Your task to perform on an android device: change text size in settings app Image 0: 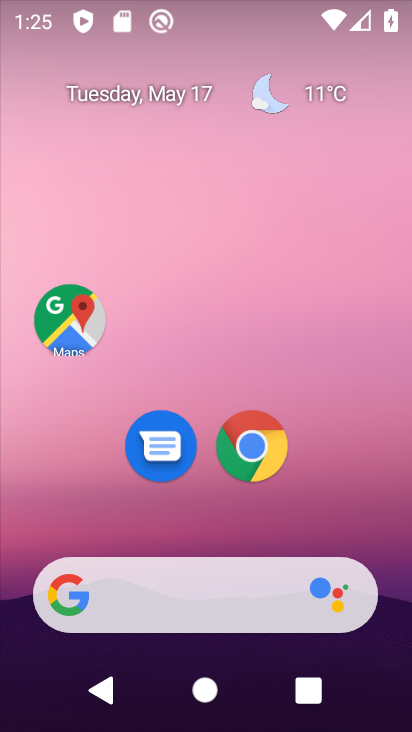
Step 0: drag from (356, 417) to (326, 74)
Your task to perform on an android device: change text size in settings app Image 1: 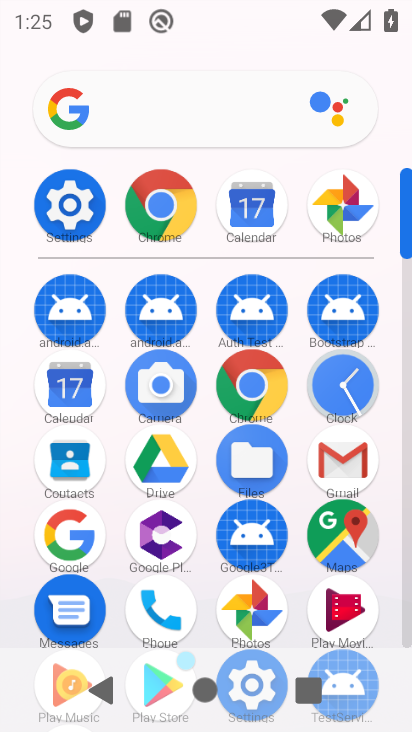
Step 1: click (66, 195)
Your task to perform on an android device: change text size in settings app Image 2: 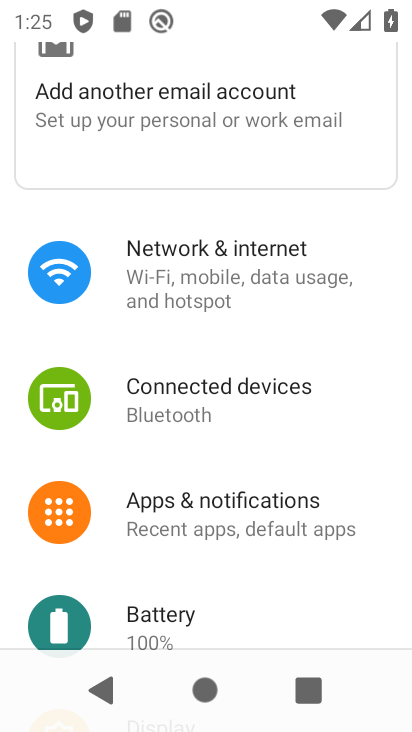
Step 2: drag from (209, 557) to (212, 296)
Your task to perform on an android device: change text size in settings app Image 3: 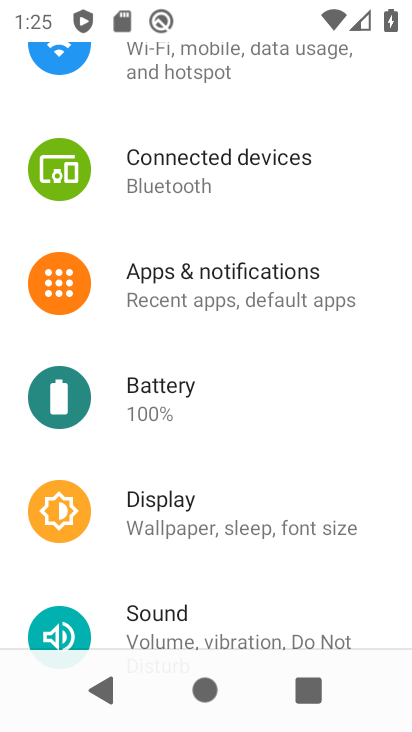
Step 3: click (188, 522)
Your task to perform on an android device: change text size in settings app Image 4: 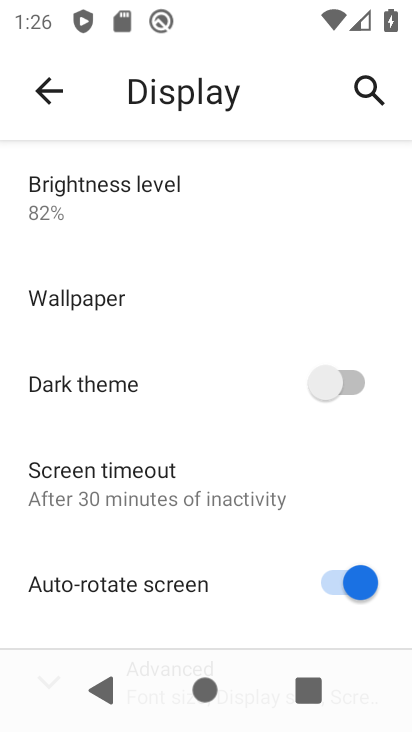
Step 4: drag from (272, 562) to (255, 134)
Your task to perform on an android device: change text size in settings app Image 5: 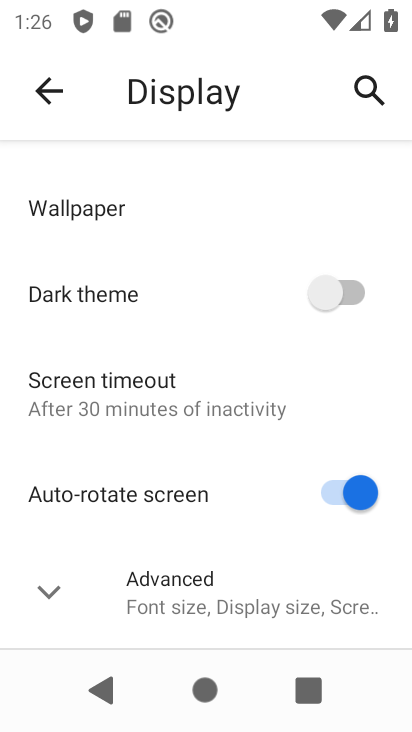
Step 5: click (208, 601)
Your task to perform on an android device: change text size in settings app Image 6: 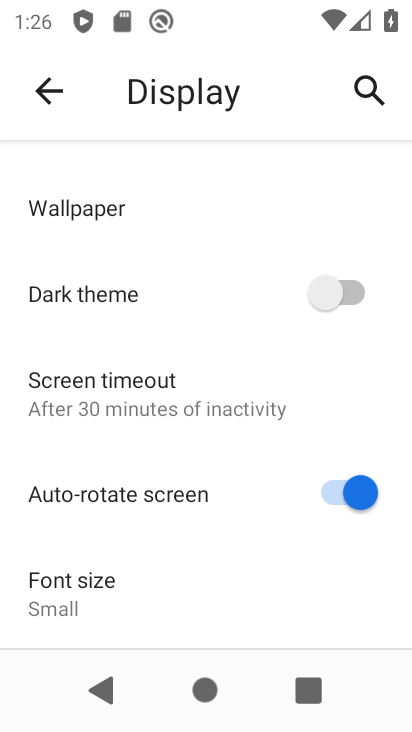
Step 6: click (124, 594)
Your task to perform on an android device: change text size in settings app Image 7: 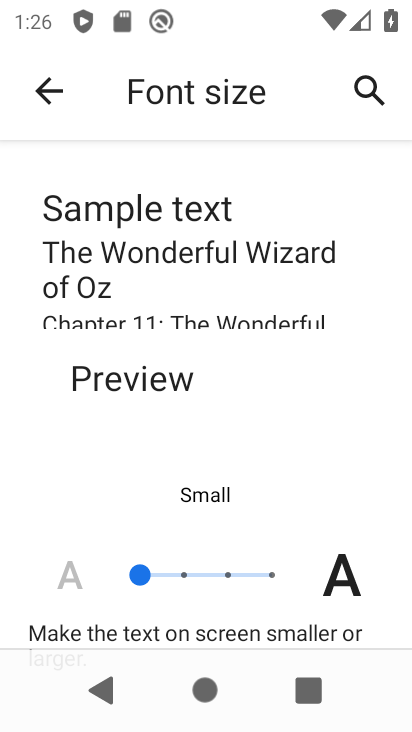
Step 7: click (186, 575)
Your task to perform on an android device: change text size in settings app Image 8: 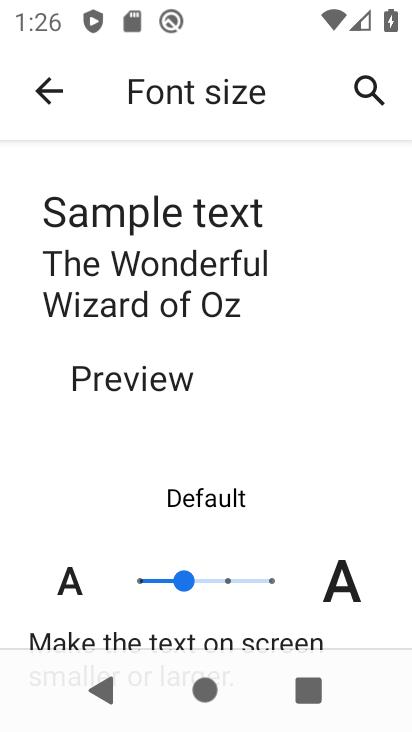
Step 8: task complete